Your task to perform on an android device: Open Amazon Image 0: 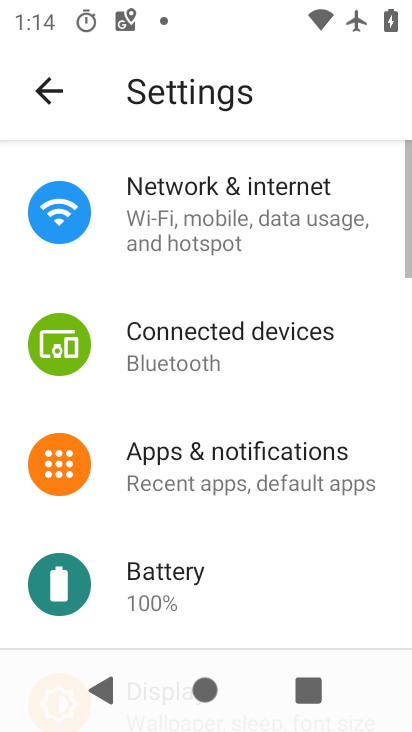
Step 0: press home button
Your task to perform on an android device: Open Amazon Image 1: 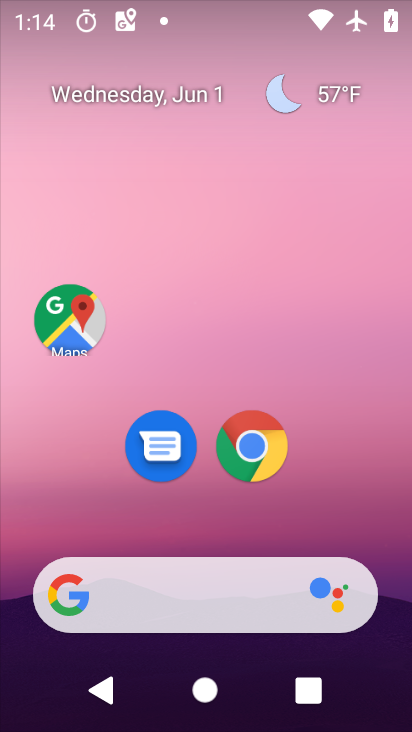
Step 1: drag from (191, 550) to (225, 183)
Your task to perform on an android device: Open Amazon Image 2: 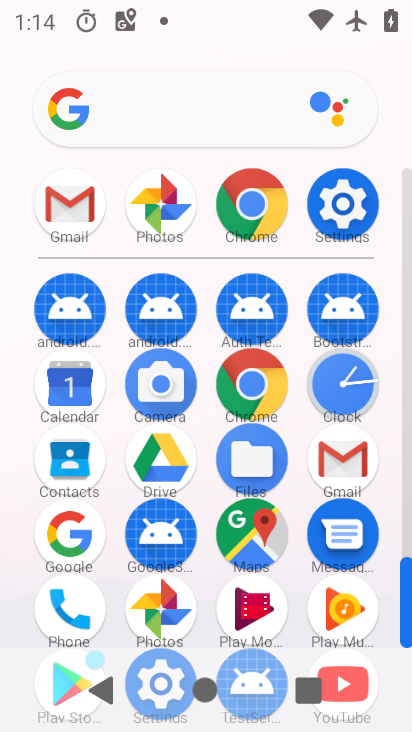
Step 2: drag from (201, 272) to (196, 110)
Your task to perform on an android device: Open Amazon Image 3: 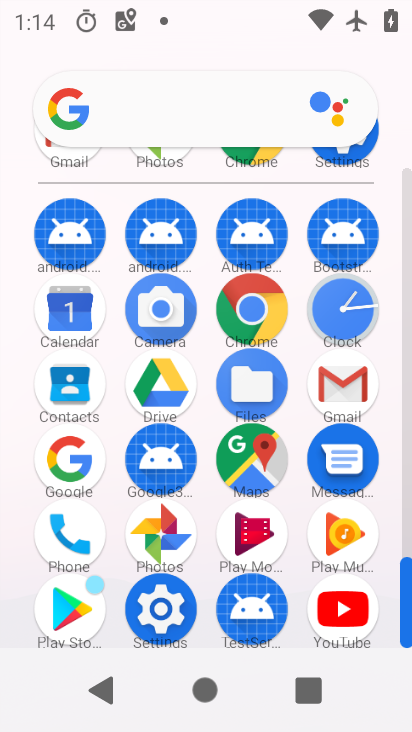
Step 3: click (245, 309)
Your task to perform on an android device: Open Amazon Image 4: 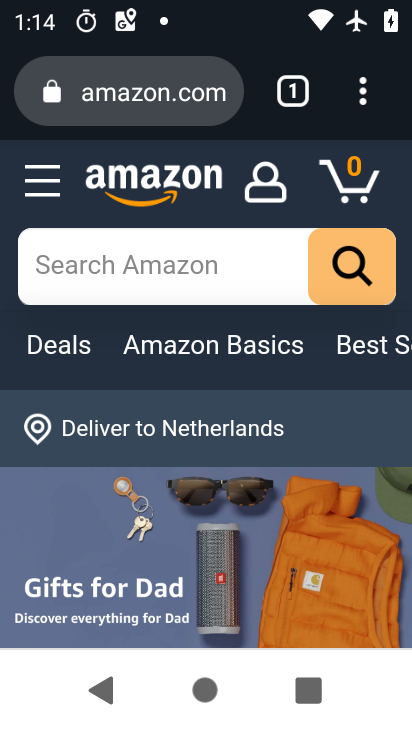
Step 4: click (357, 99)
Your task to perform on an android device: Open Amazon Image 5: 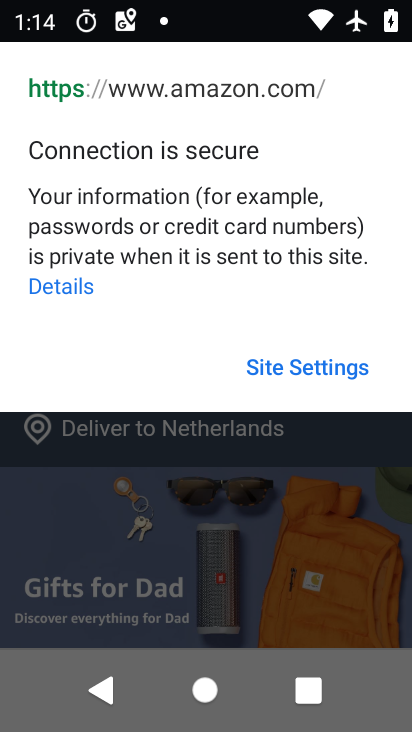
Step 5: click (302, 557)
Your task to perform on an android device: Open Amazon Image 6: 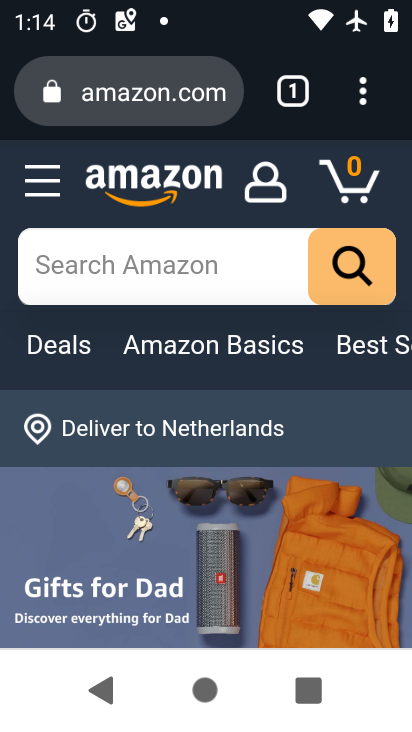
Step 6: task complete